Your task to perform on an android device: Do I have any events today? Image 0: 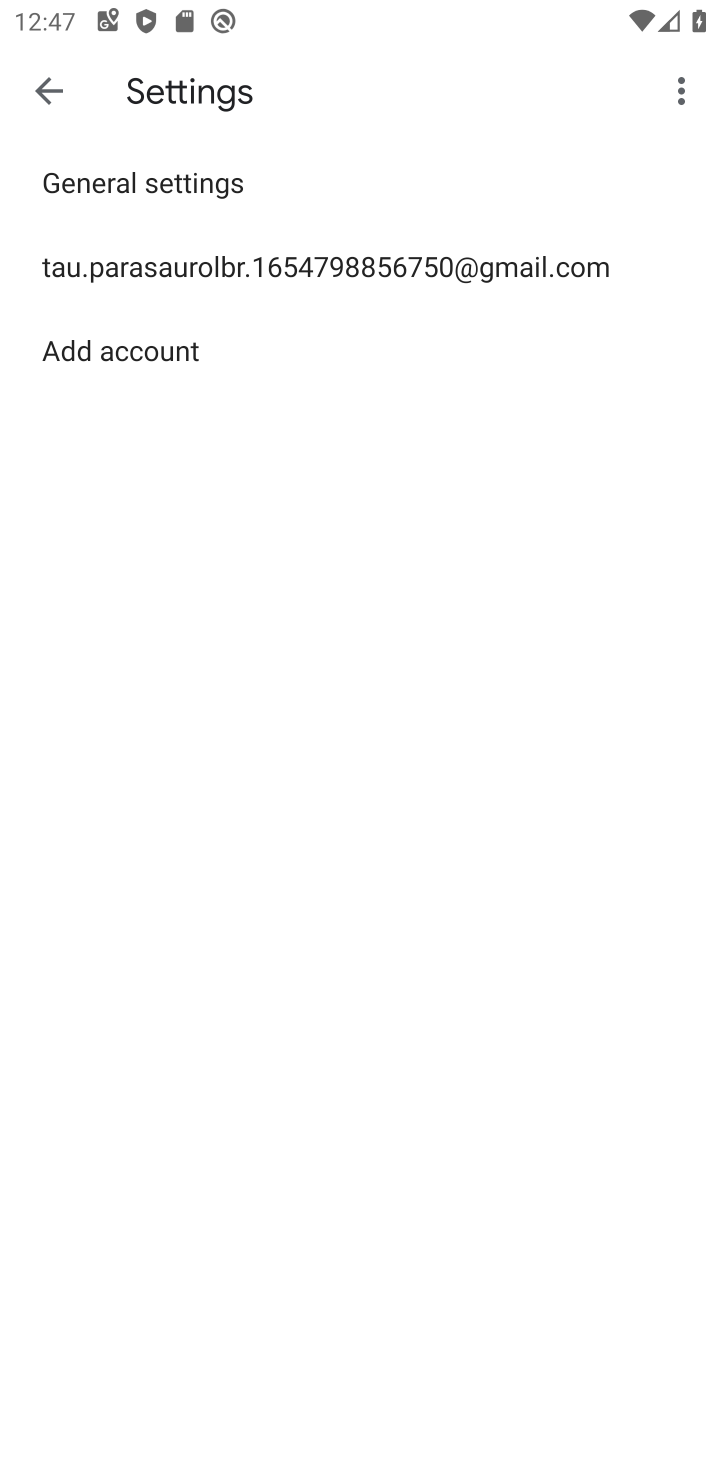
Step 0: press home button
Your task to perform on an android device: Do I have any events today? Image 1: 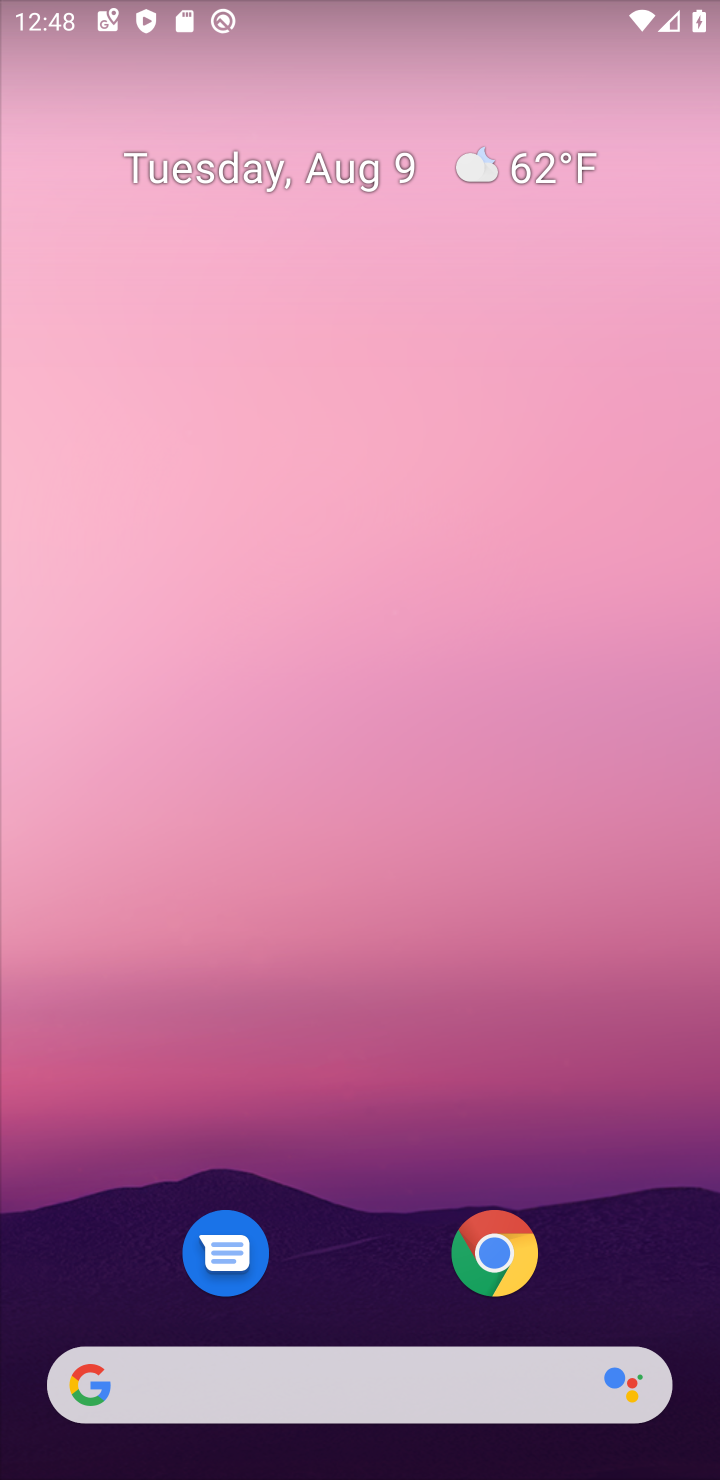
Step 1: drag from (553, 725) to (392, 79)
Your task to perform on an android device: Do I have any events today? Image 2: 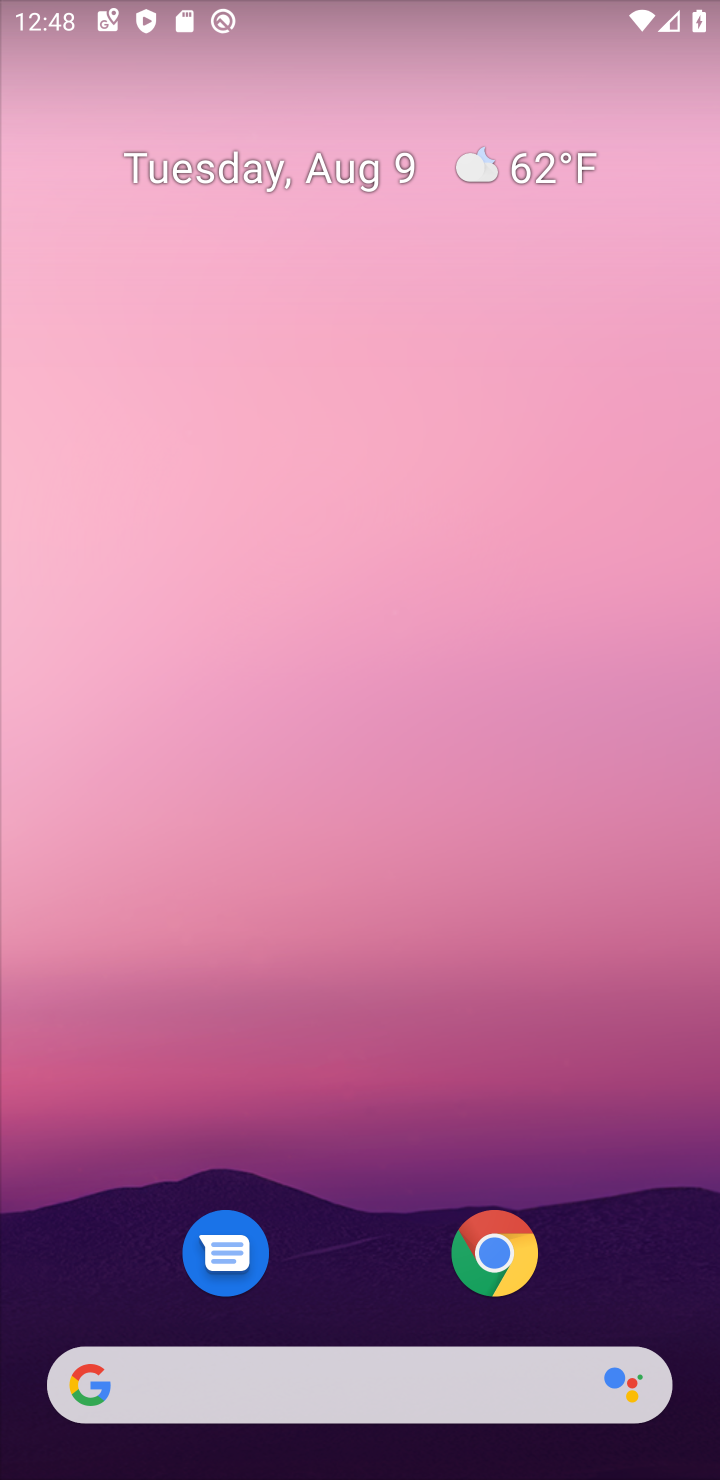
Step 2: drag from (604, 1035) to (443, 33)
Your task to perform on an android device: Do I have any events today? Image 3: 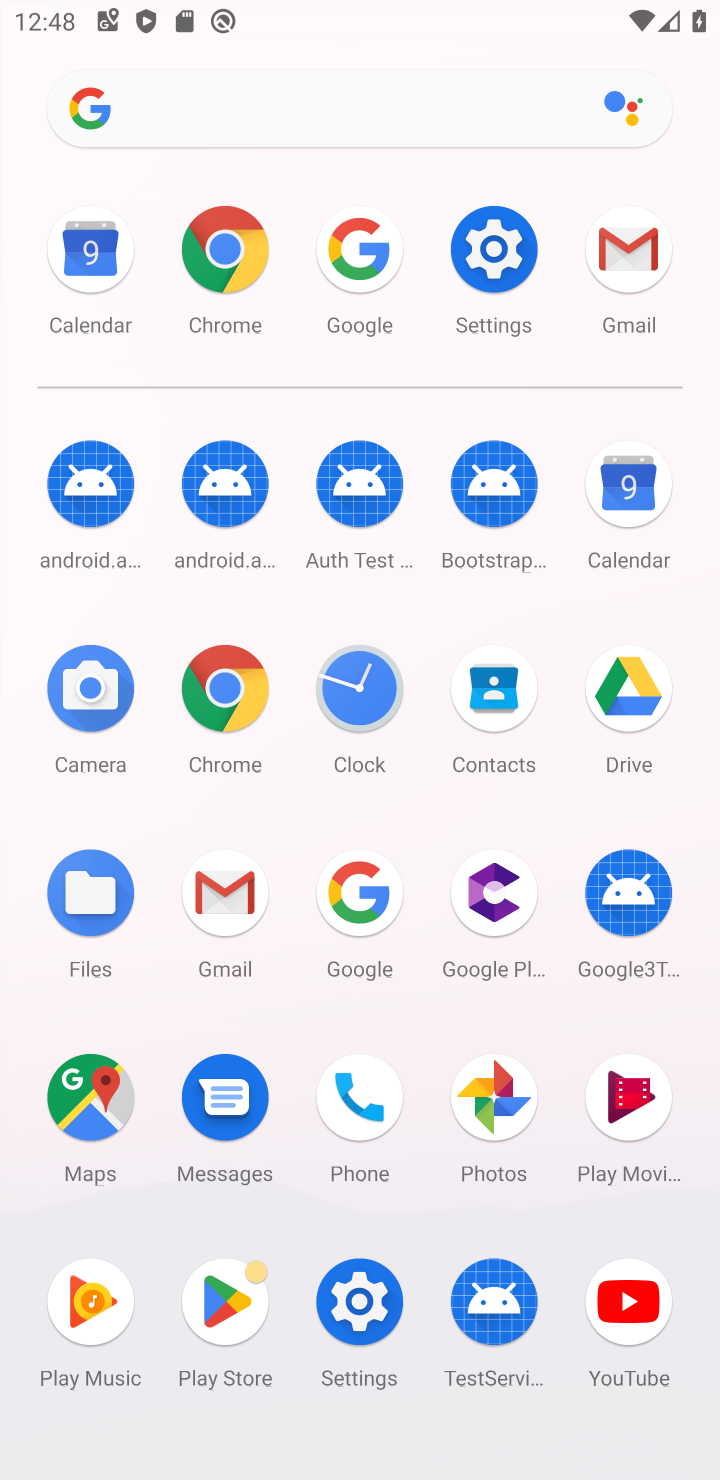
Step 3: click (616, 523)
Your task to perform on an android device: Do I have any events today? Image 4: 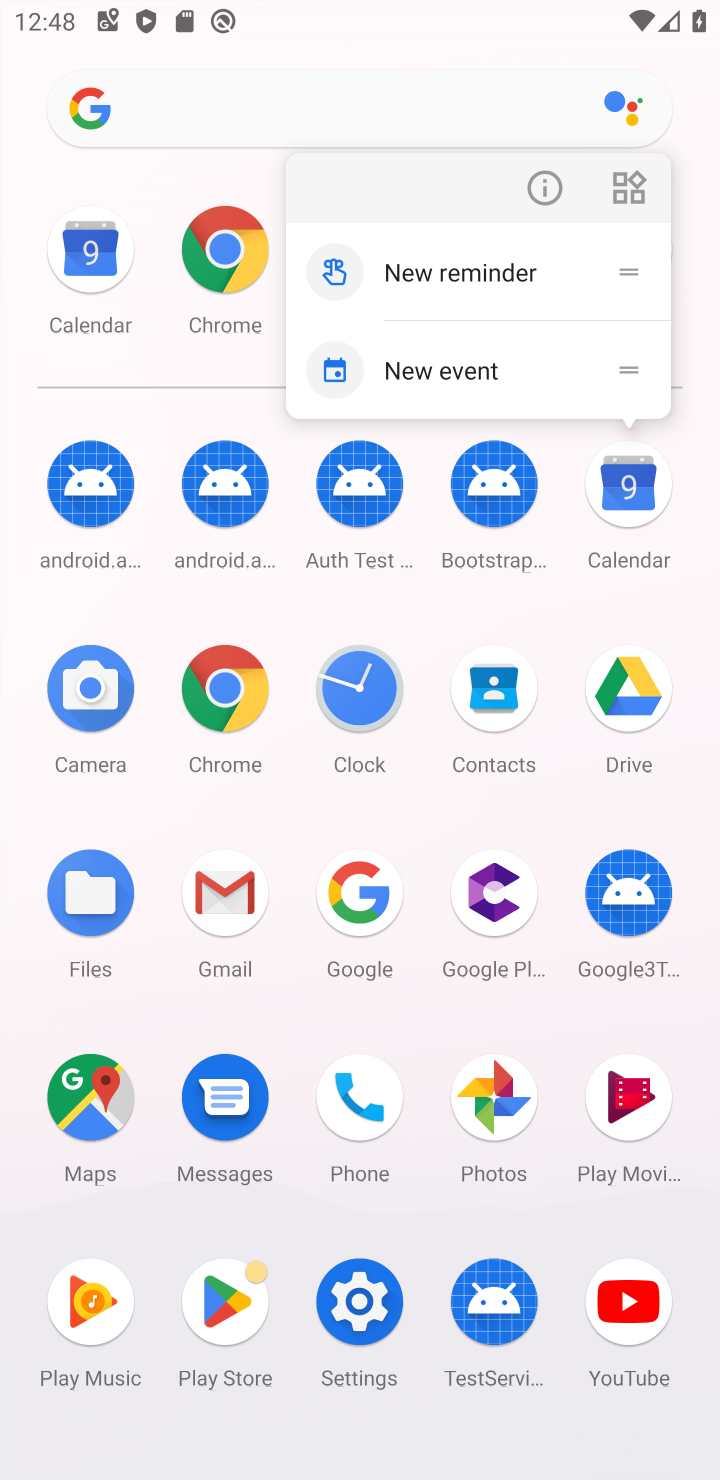
Step 4: click (616, 523)
Your task to perform on an android device: Do I have any events today? Image 5: 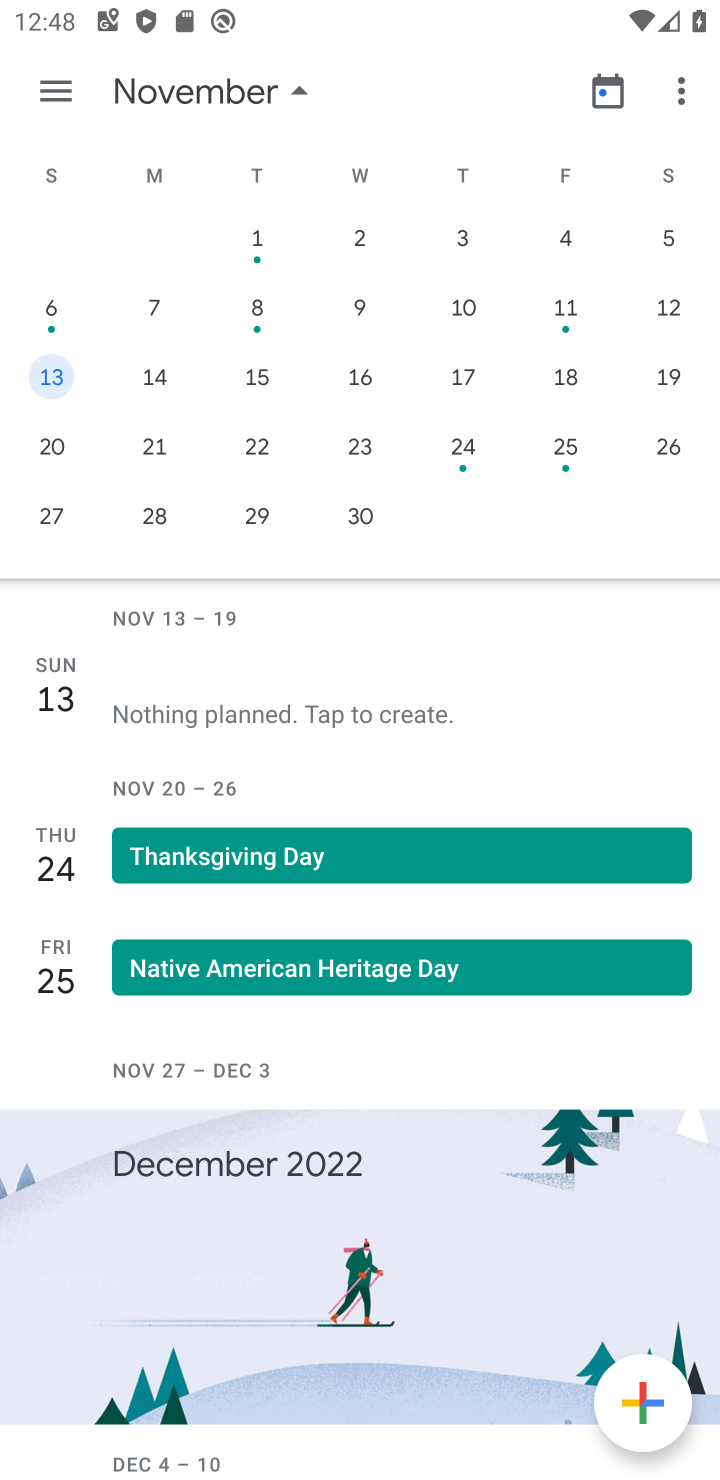
Step 5: task complete